Your task to perform on an android device: check storage Image 0: 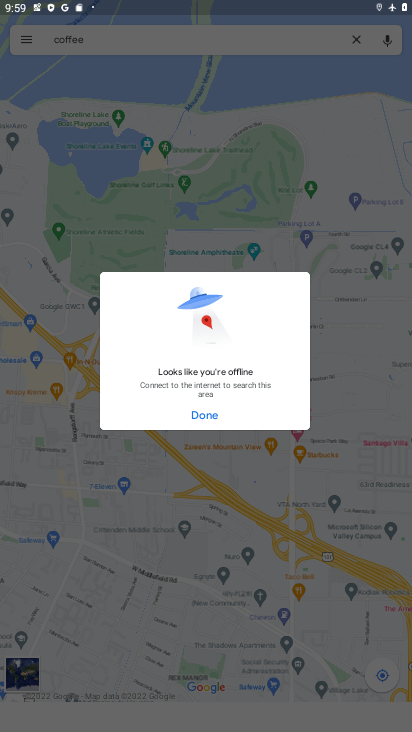
Step 0: press back button
Your task to perform on an android device: check storage Image 1: 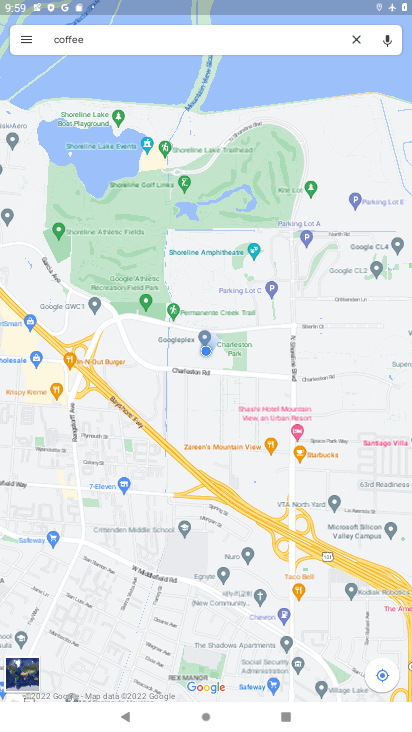
Step 1: press back button
Your task to perform on an android device: check storage Image 2: 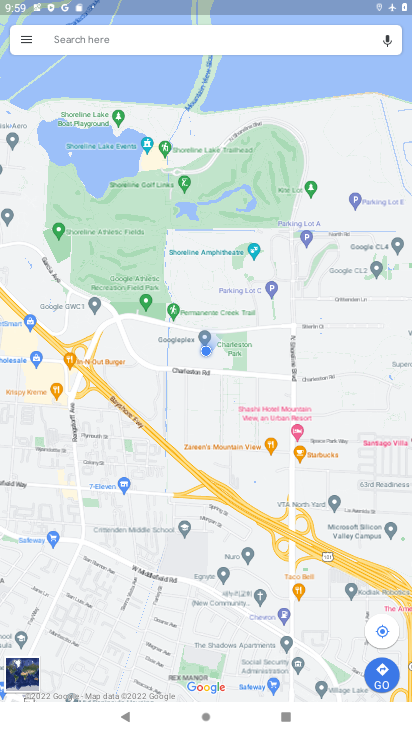
Step 2: press back button
Your task to perform on an android device: check storage Image 3: 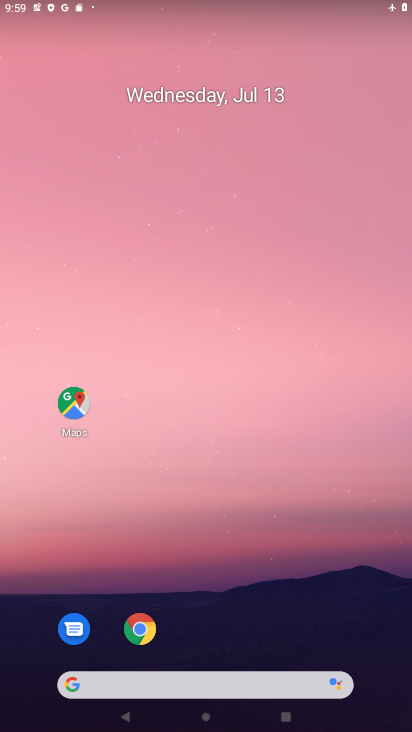
Step 3: drag from (280, 621) to (242, 71)
Your task to perform on an android device: check storage Image 4: 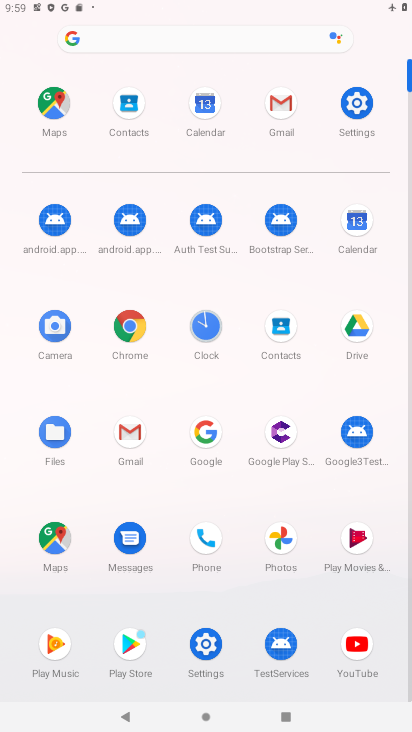
Step 4: click (370, 109)
Your task to perform on an android device: check storage Image 5: 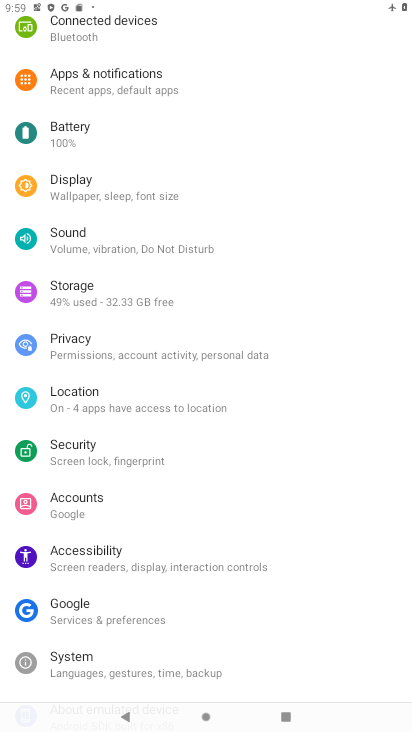
Step 5: click (193, 303)
Your task to perform on an android device: check storage Image 6: 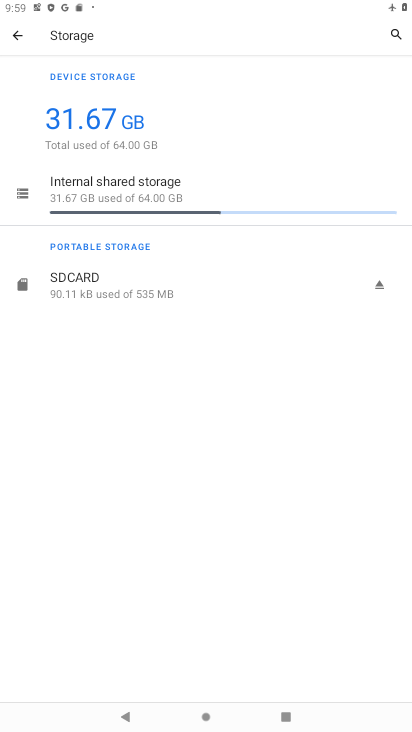
Step 6: task complete